Your task to perform on an android device: set the stopwatch Image 0: 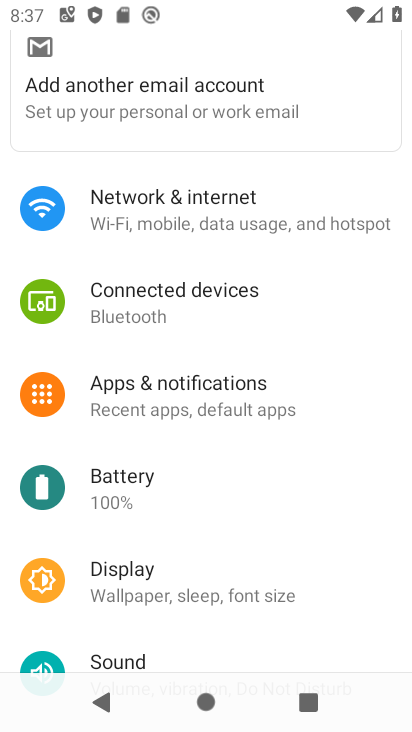
Step 0: drag from (259, 639) to (270, 328)
Your task to perform on an android device: set the stopwatch Image 1: 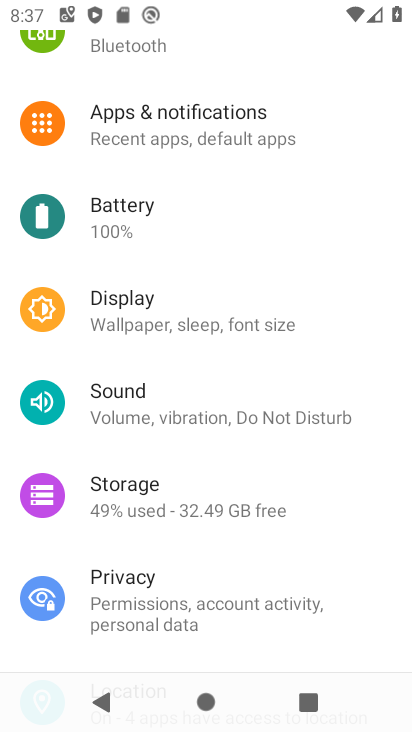
Step 1: drag from (194, 599) to (225, 372)
Your task to perform on an android device: set the stopwatch Image 2: 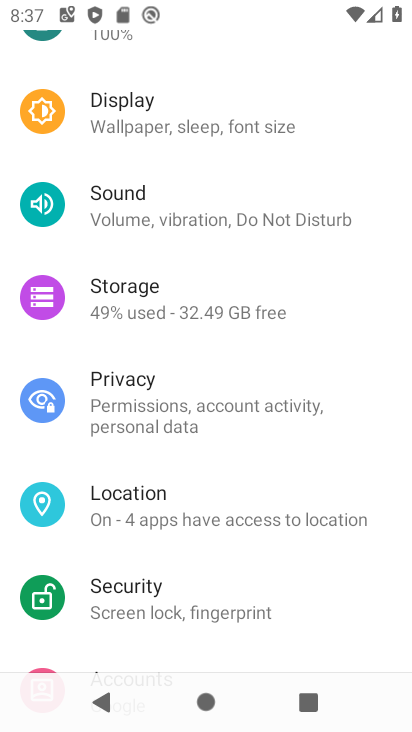
Step 2: press home button
Your task to perform on an android device: set the stopwatch Image 3: 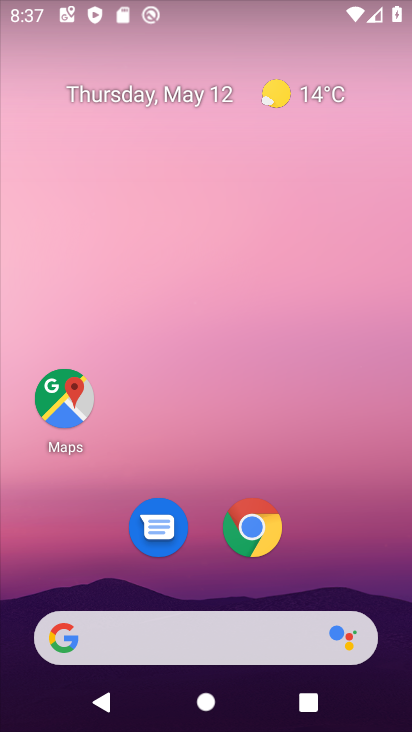
Step 3: drag from (308, 501) to (319, 161)
Your task to perform on an android device: set the stopwatch Image 4: 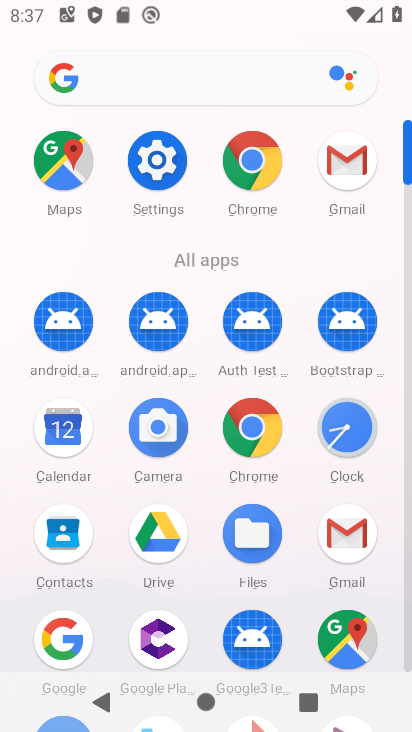
Step 4: click (349, 407)
Your task to perform on an android device: set the stopwatch Image 5: 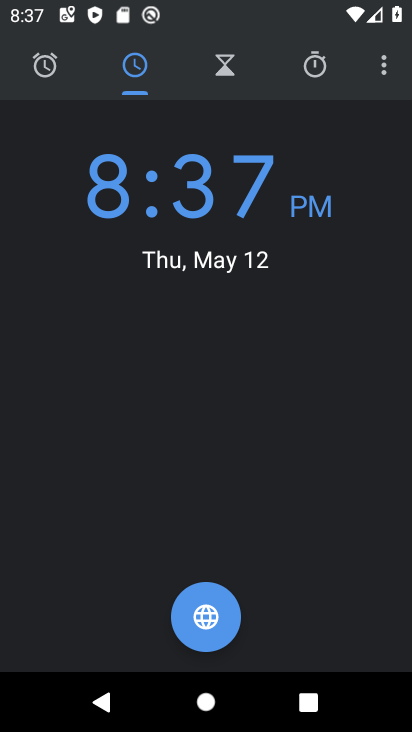
Step 5: click (314, 62)
Your task to perform on an android device: set the stopwatch Image 6: 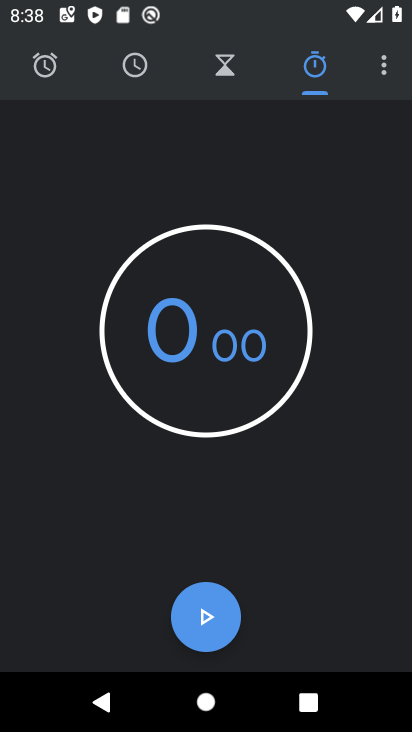
Step 6: task complete